Your task to perform on an android device: How do I get to the nearest Home Depot? Image 0: 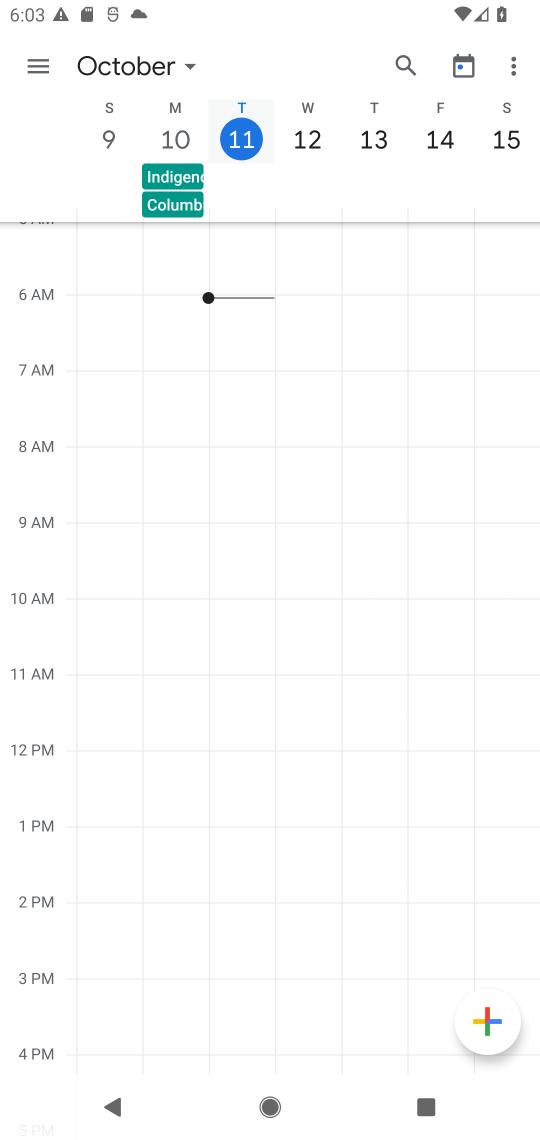
Step 0: press home button
Your task to perform on an android device: How do I get to the nearest Home Depot? Image 1: 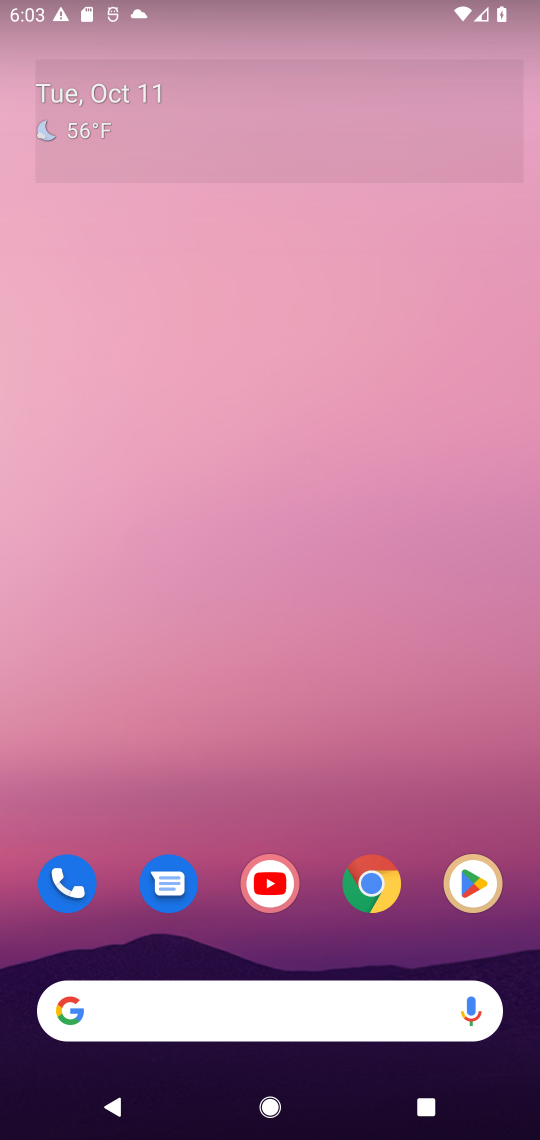
Step 1: drag from (306, 967) to (264, 243)
Your task to perform on an android device: How do I get to the nearest Home Depot? Image 2: 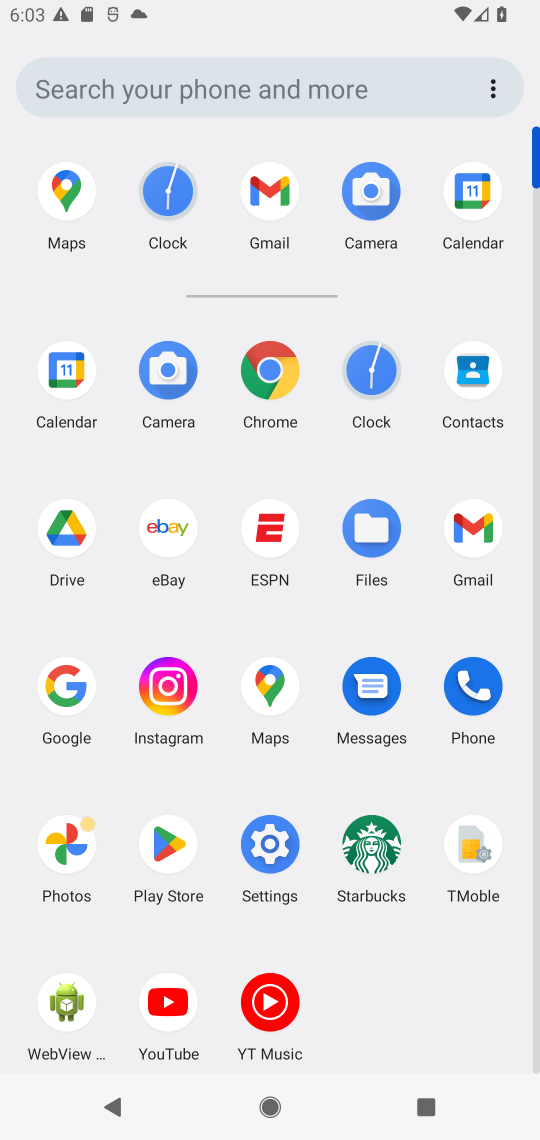
Step 2: click (276, 378)
Your task to perform on an android device: How do I get to the nearest Home Depot? Image 3: 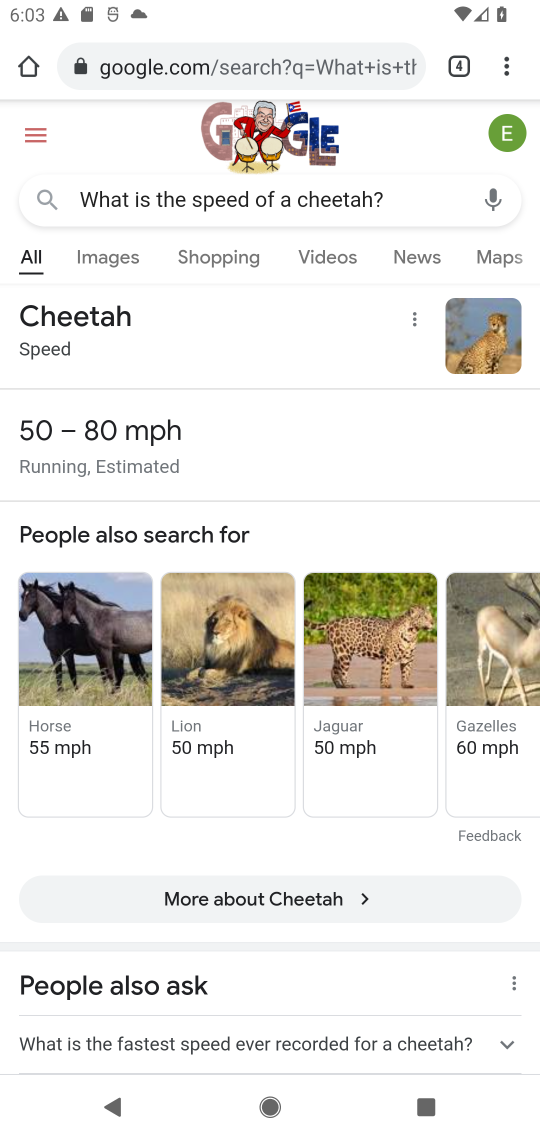
Step 3: click (294, 54)
Your task to perform on an android device: How do I get to the nearest Home Depot? Image 4: 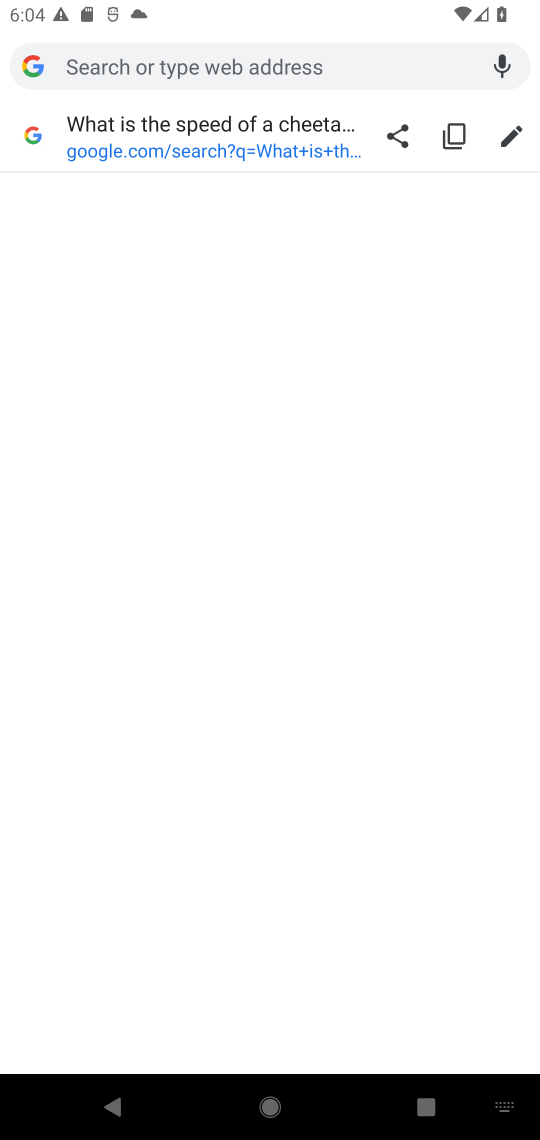
Step 4: type "How do I get to the nearest Home Depot?"
Your task to perform on an android device: How do I get to the nearest Home Depot? Image 5: 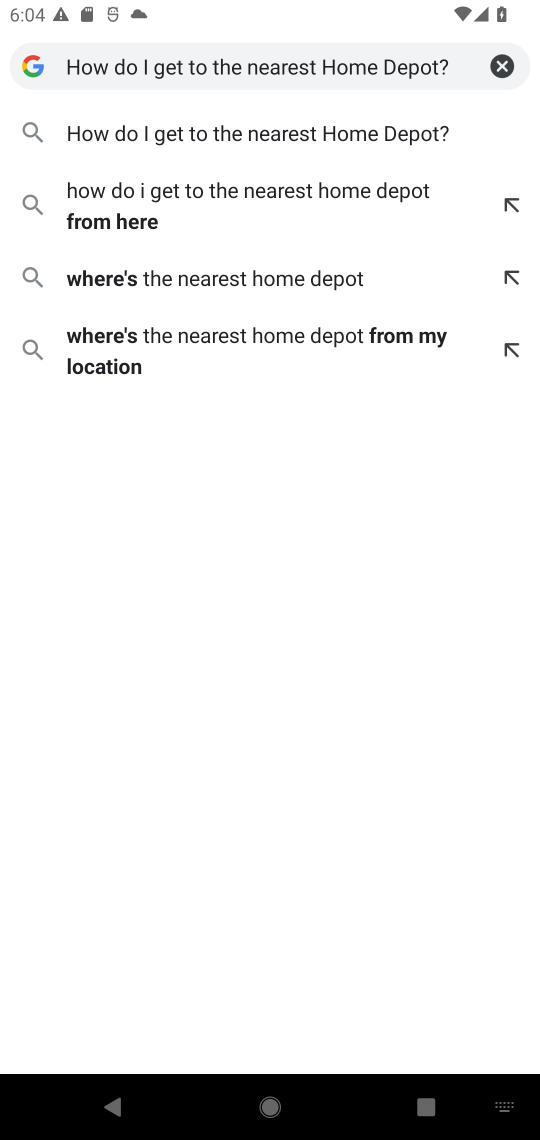
Step 5: press enter
Your task to perform on an android device: How do I get to the nearest Home Depot? Image 6: 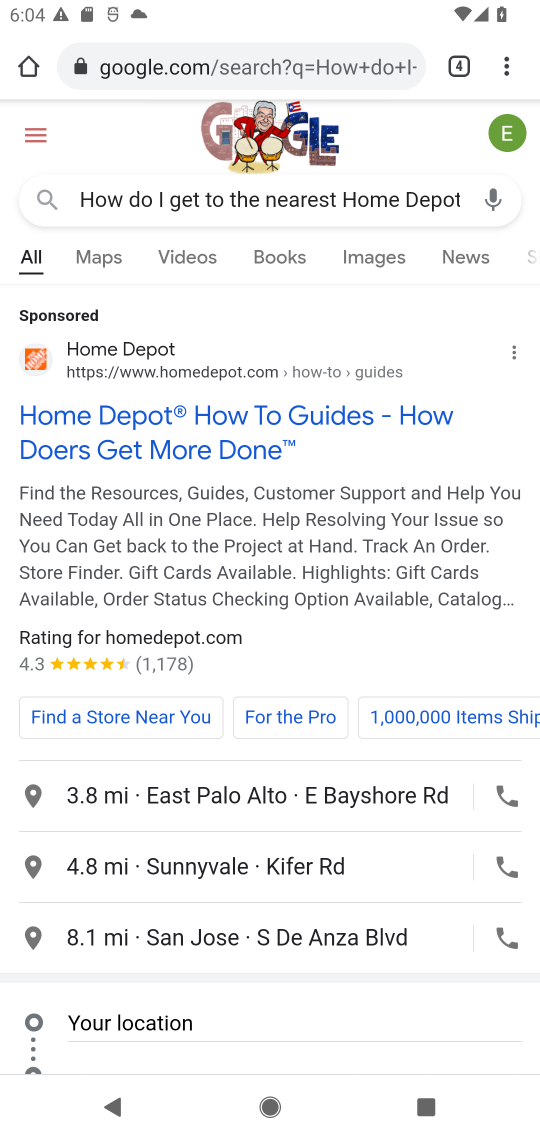
Step 6: click (215, 428)
Your task to perform on an android device: How do I get to the nearest Home Depot? Image 7: 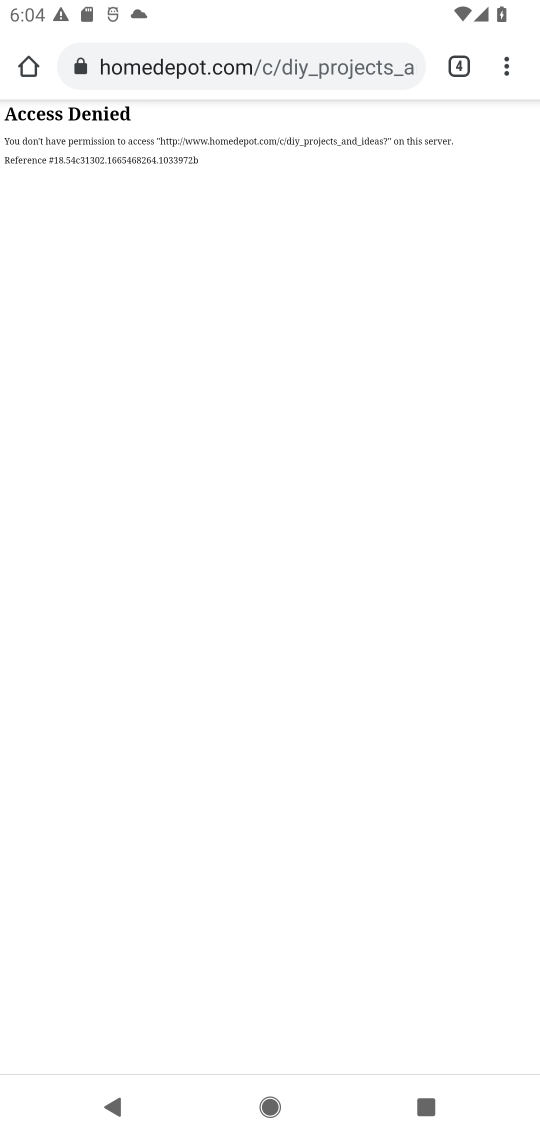
Step 7: task complete